Your task to perform on an android device: set the stopwatch Image 0: 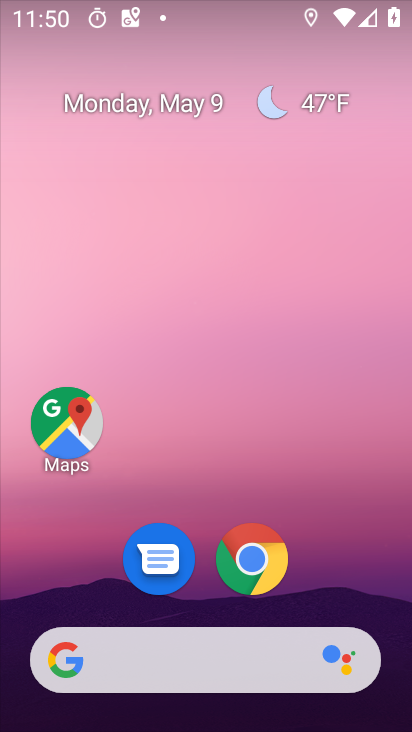
Step 0: drag from (315, 572) to (354, 123)
Your task to perform on an android device: set the stopwatch Image 1: 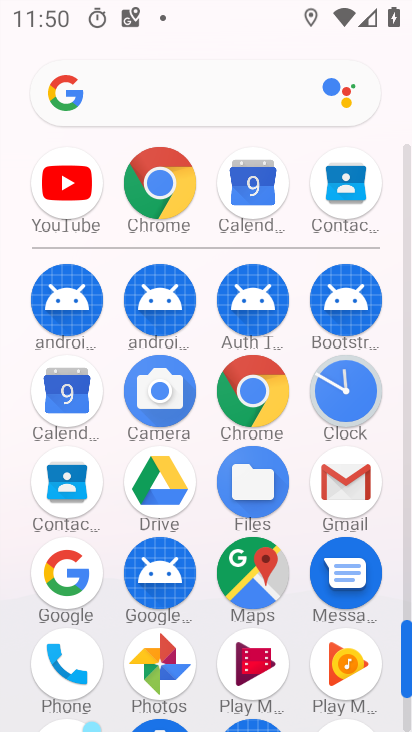
Step 1: click (348, 395)
Your task to perform on an android device: set the stopwatch Image 2: 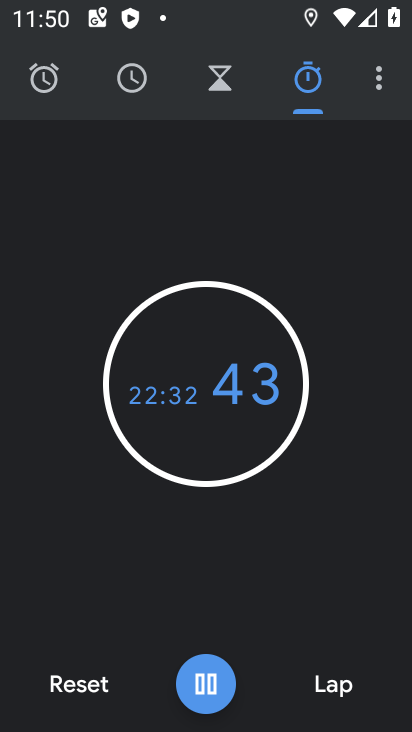
Step 2: task complete